Your task to perform on an android device: Open sound settings Image 0: 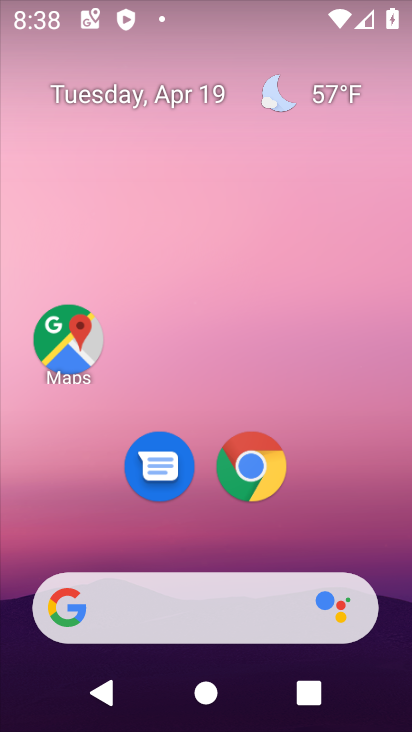
Step 0: drag from (205, 725) to (204, 132)
Your task to perform on an android device: Open sound settings Image 1: 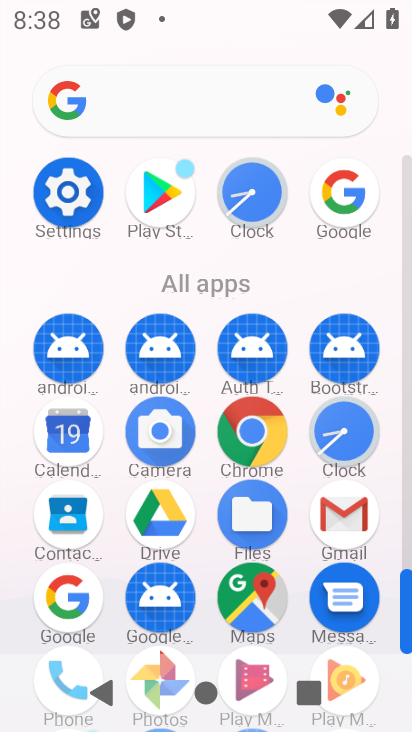
Step 1: click (68, 192)
Your task to perform on an android device: Open sound settings Image 2: 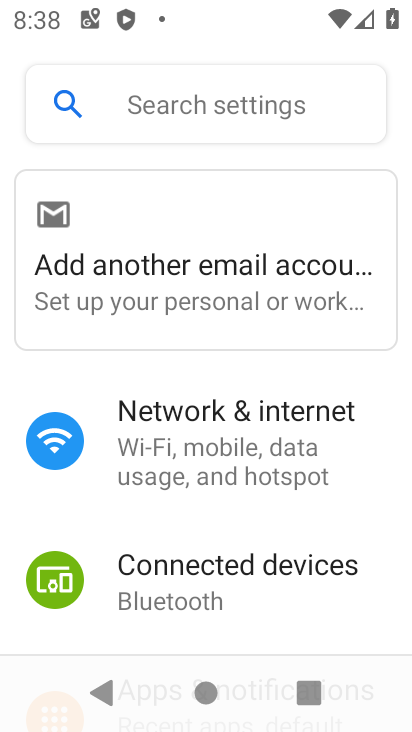
Step 2: drag from (214, 626) to (227, 231)
Your task to perform on an android device: Open sound settings Image 3: 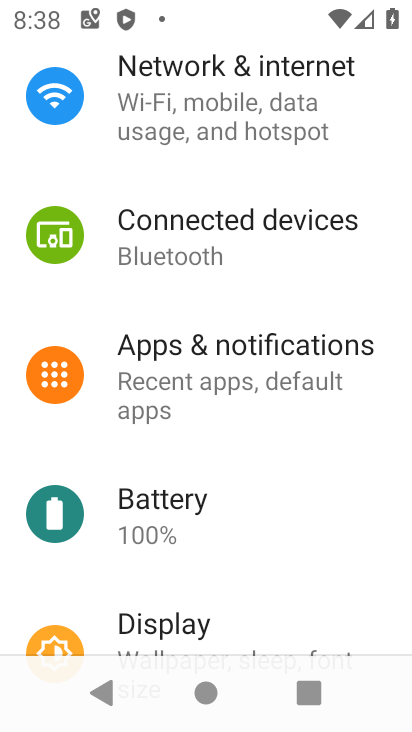
Step 3: drag from (218, 634) to (214, 182)
Your task to perform on an android device: Open sound settings Image 4: 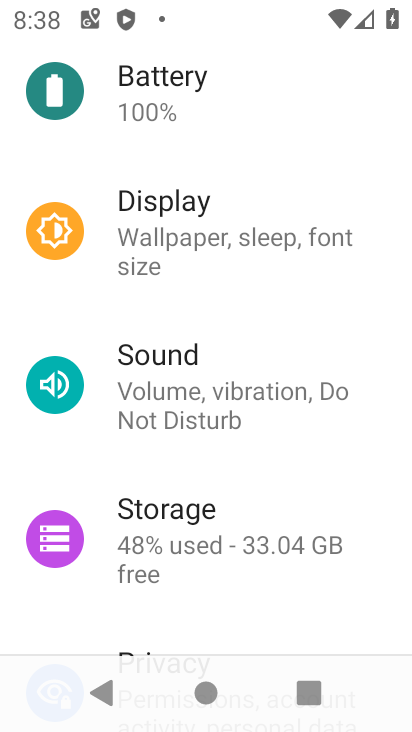
Step 4: click (162, 377)
Your task to perform on an android device: Open sound settings Image 5: 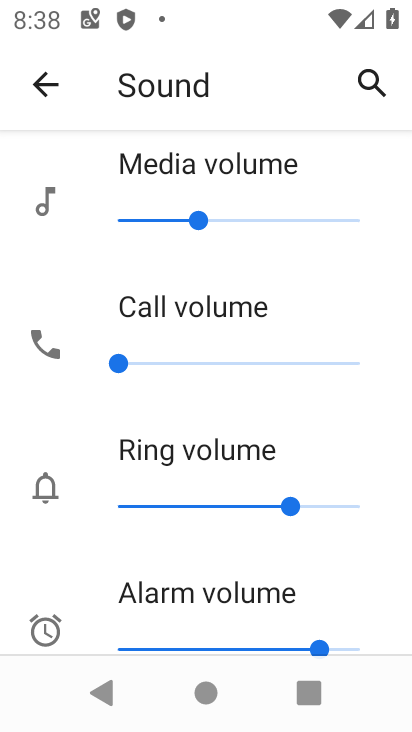
Step 5: task complete